Your task to perform on an android device: open app "Fetch Rewards" Image 0: 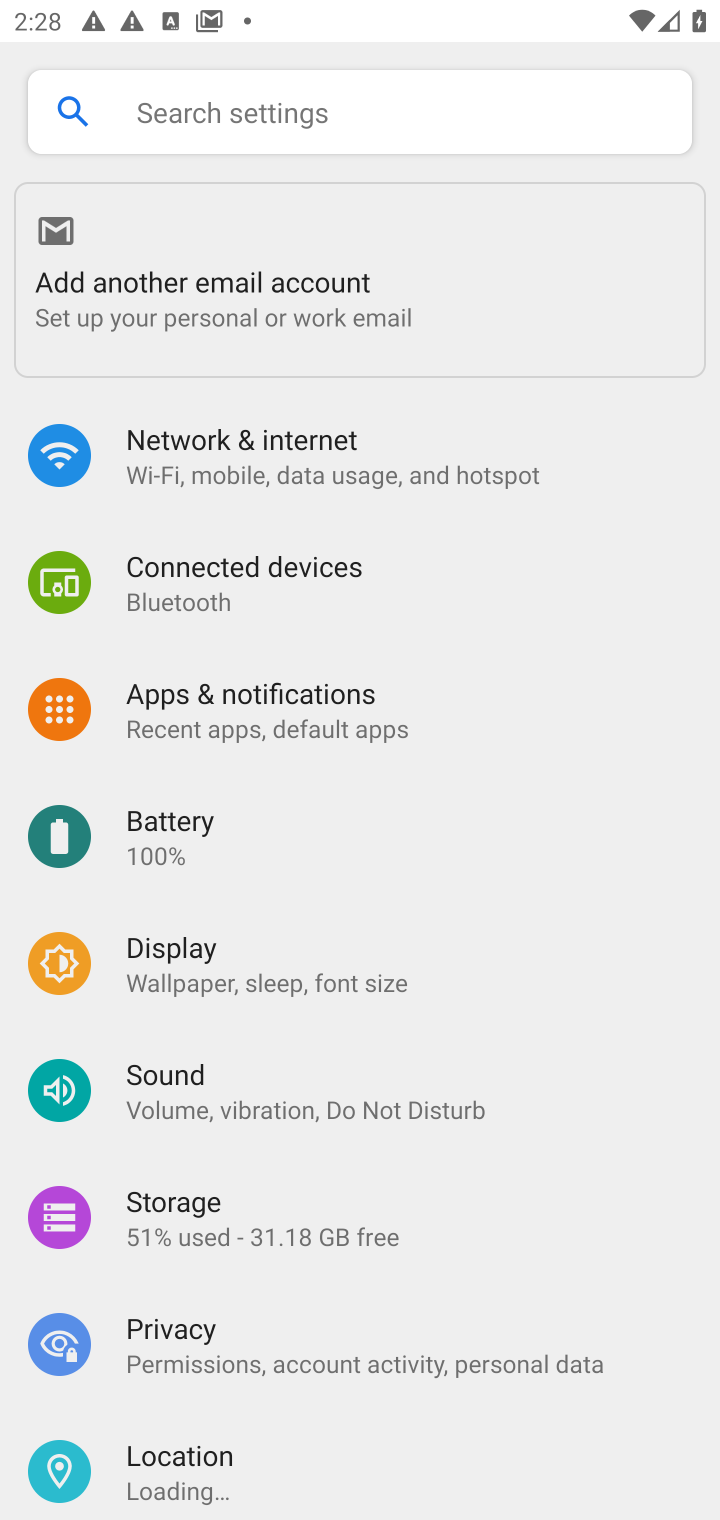
Step 0: press home button
Your task to perform on an android device: open app "Fetch Rewards" Image 1: 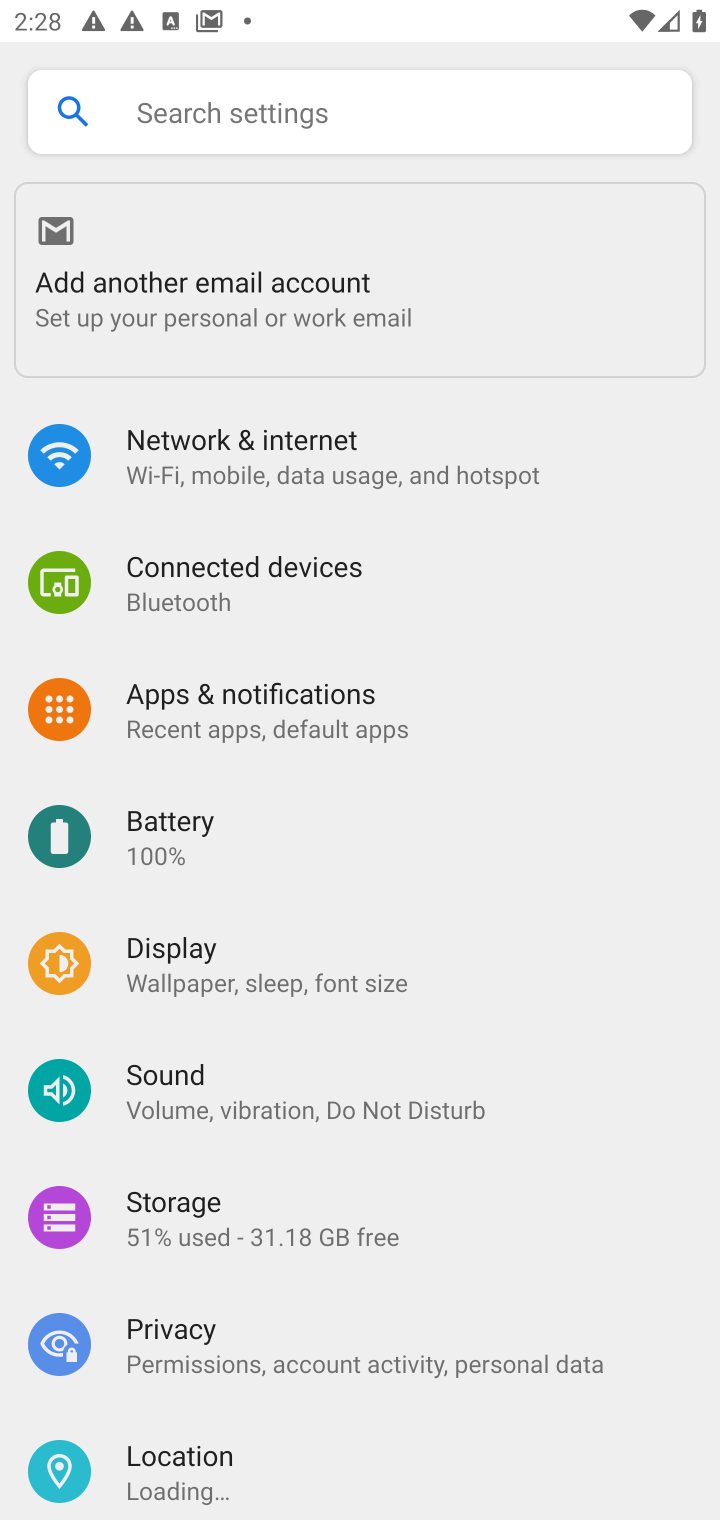
Step 1: press home button
Your task to perform on an android device: open app "Fetch Rewards" Image 2: 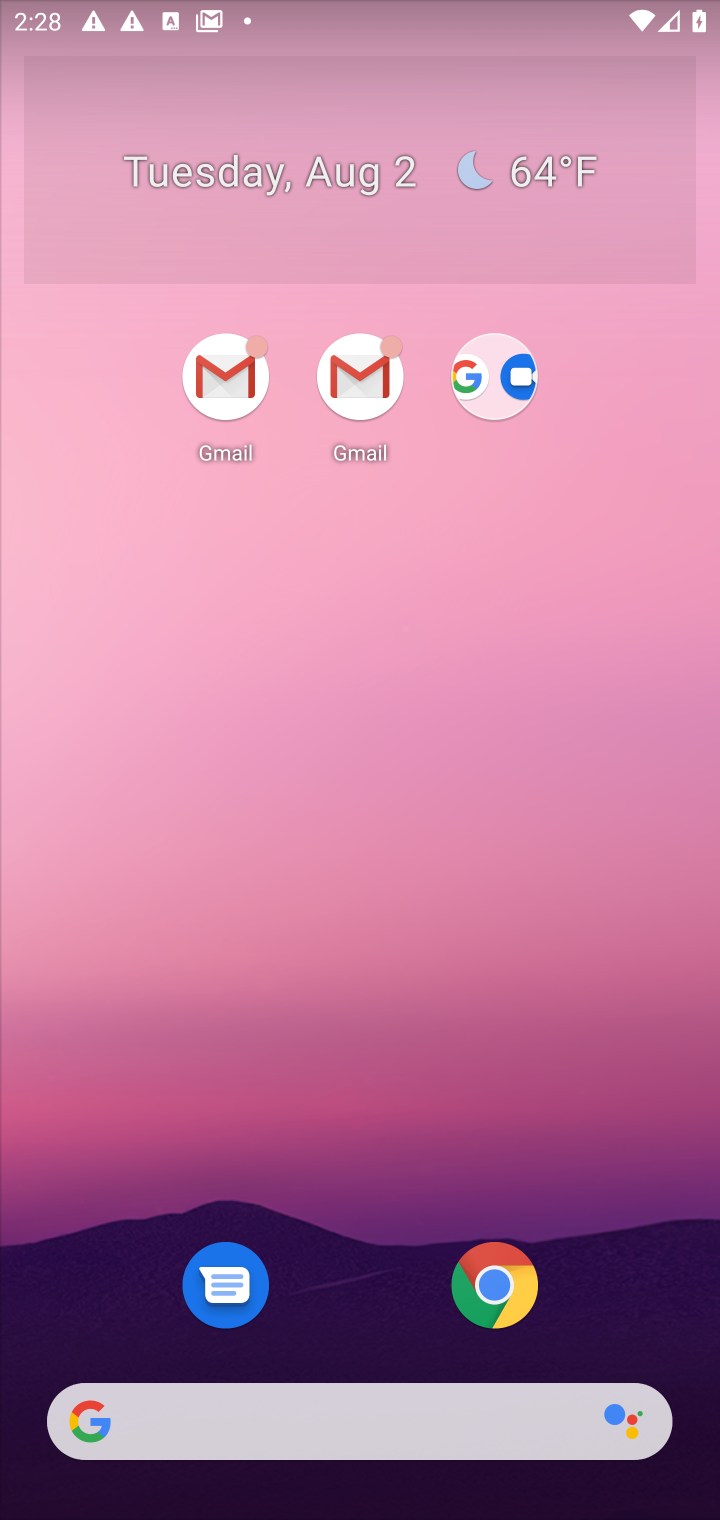
Step 2: press home button
Your task to perform on an android device: open app "Fetch Rewards" Image 3: 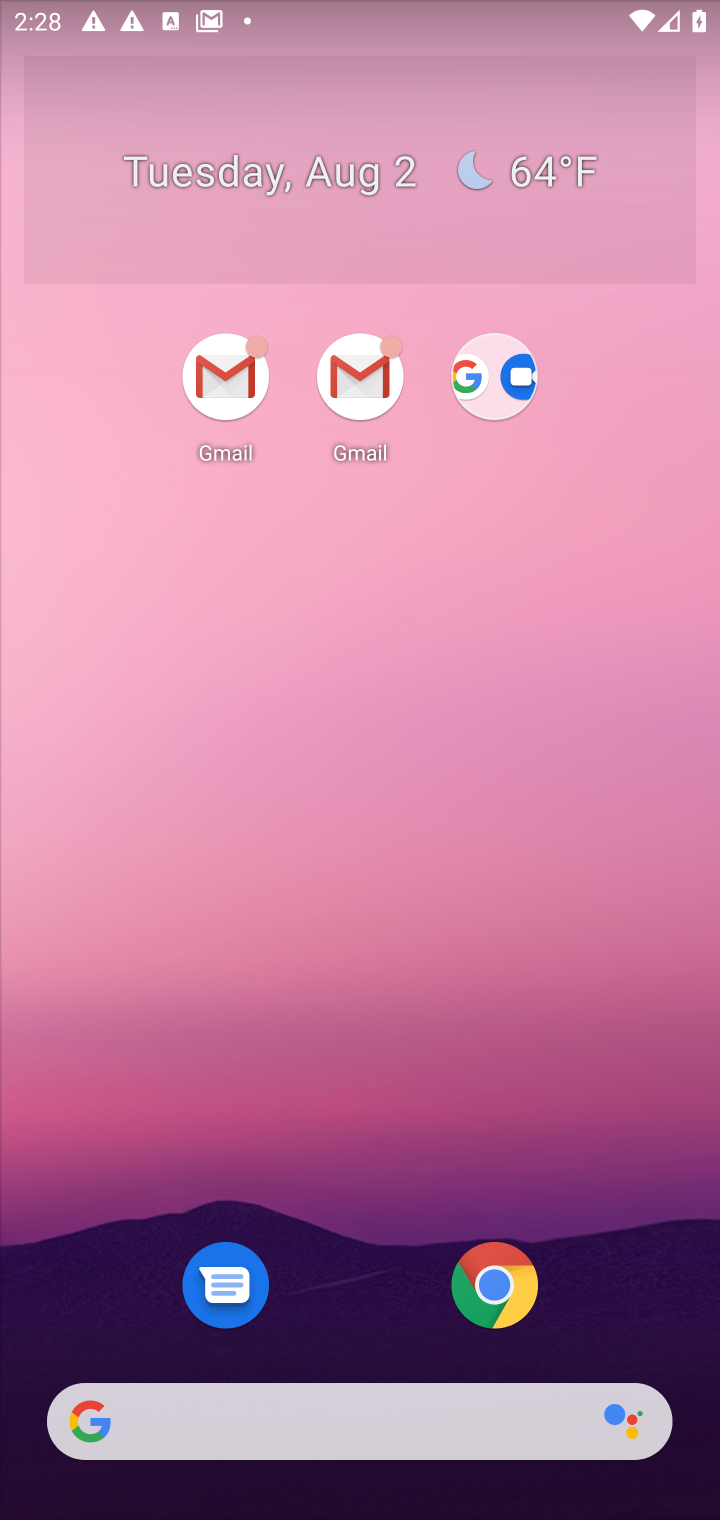
Step 3: drag from (645, 1251) to (628, 208)
Your task to perform on an android device: open app "Fetch Rewards" Image 4: 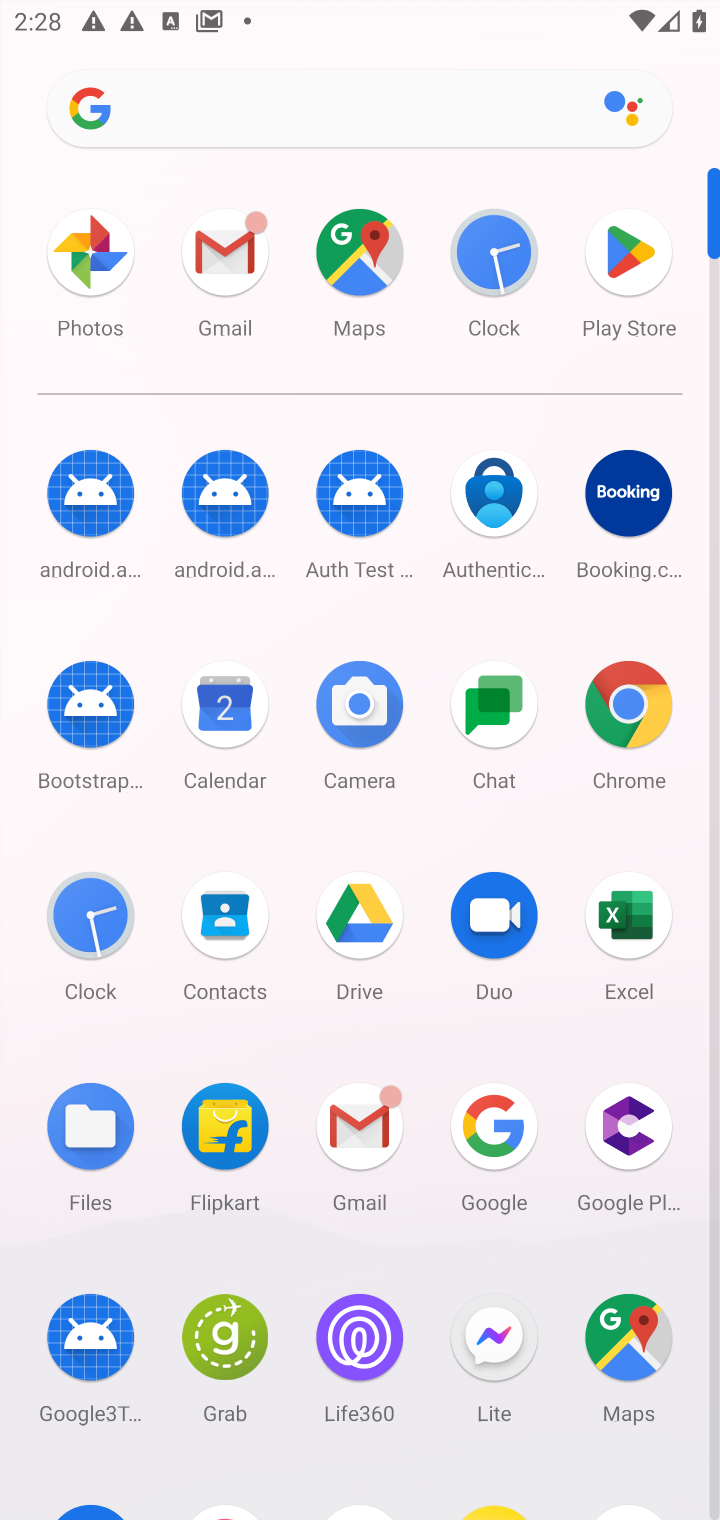
Step 4: drag from (432, 1251) to (449, 393)
Your task to perform on an android device: open app "Fetch Rewards" Image 5: 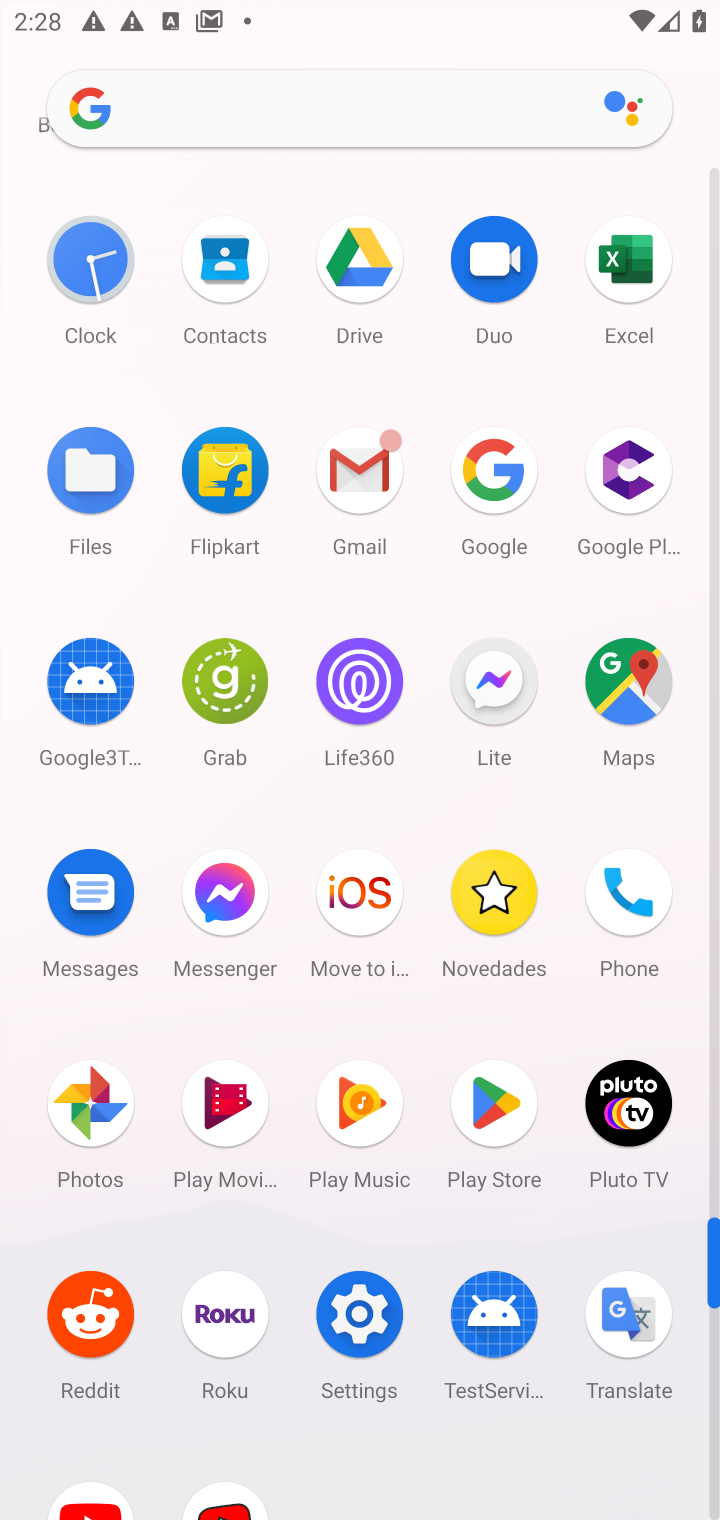
Step 5: click (479, 1104)
Your task to perform on an android device: open app "Fetch Rewards" Image 6: 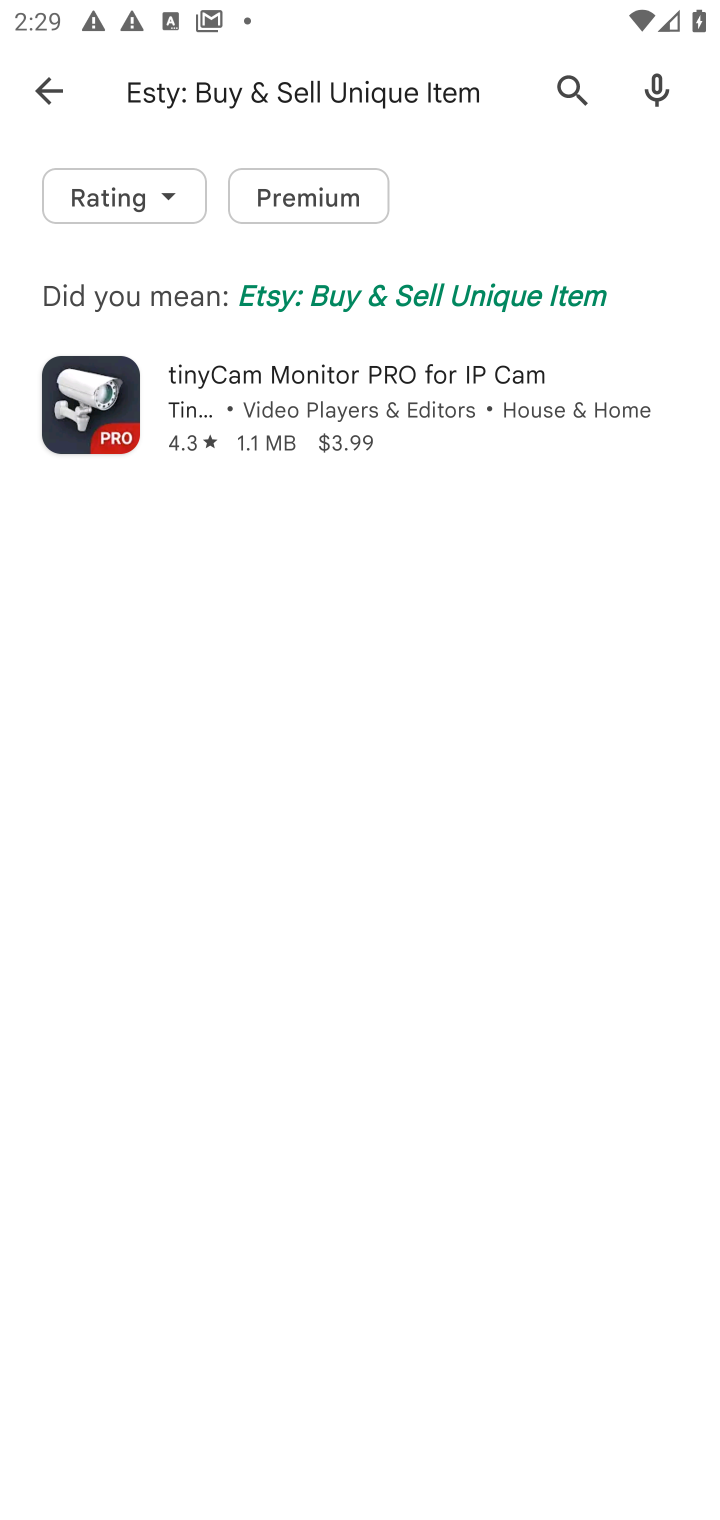
Step 6: click (383, 92)
Your task to perform on an android device: open app "Fetch Rewards" Image 7: 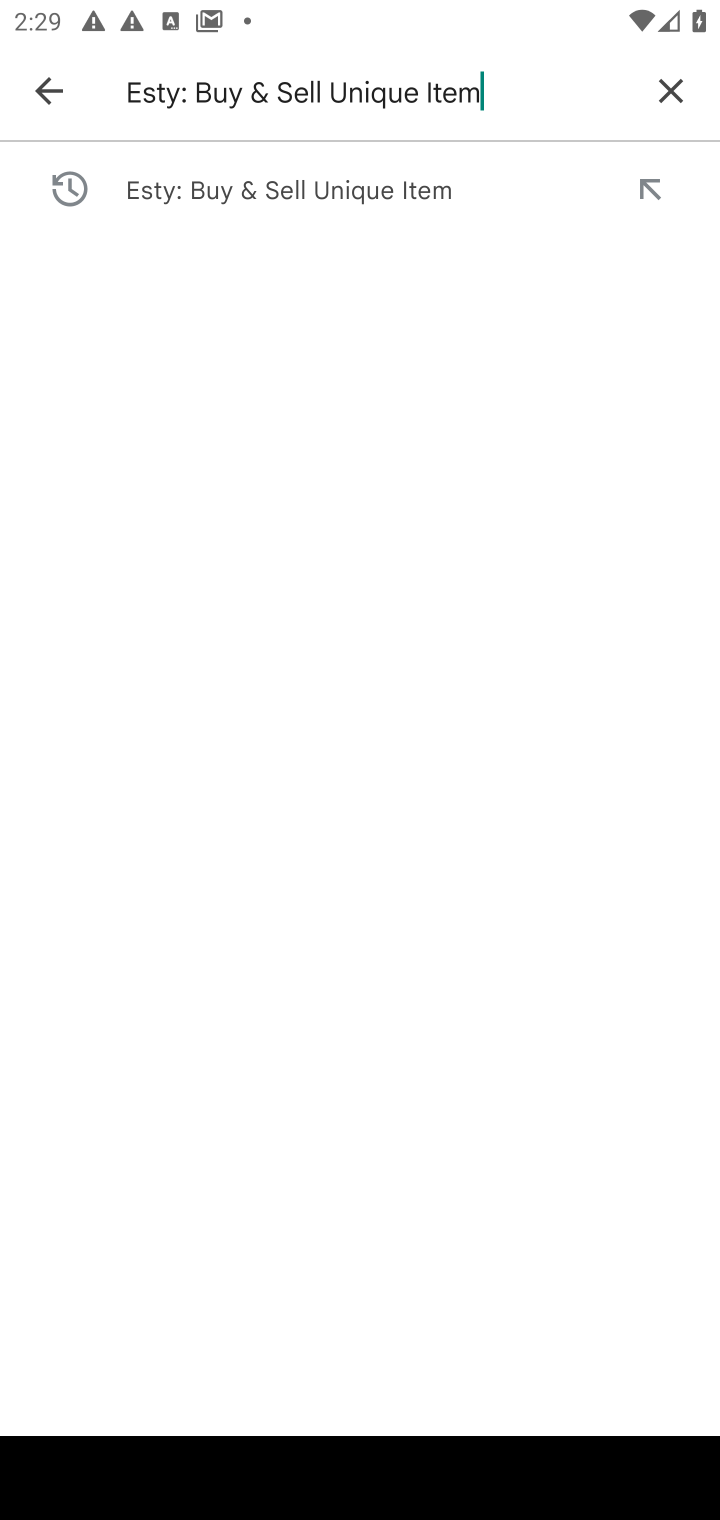
Step 7: click (683, 86)
Your task to perform on an android device: open app "Fetch Rewards" Image 8: 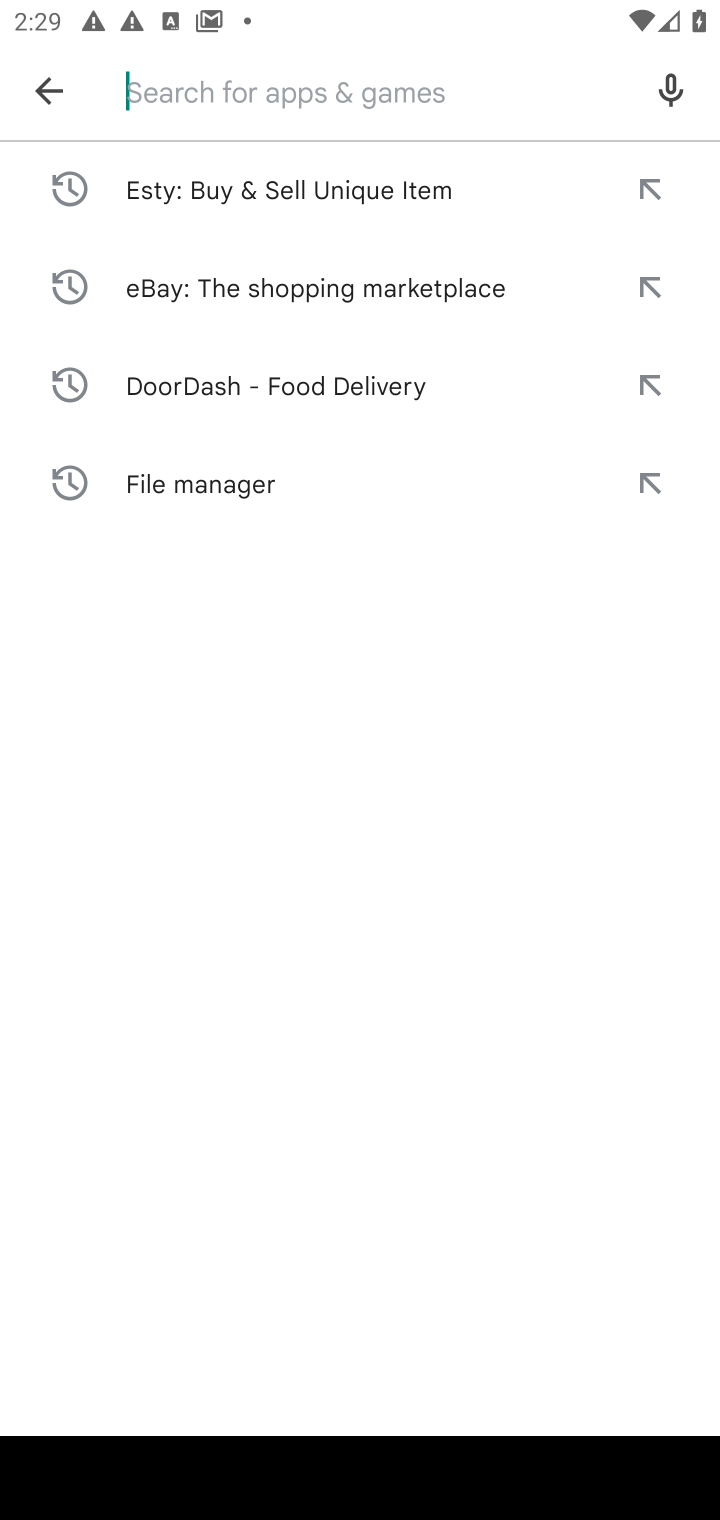
Step 8: type "Fetch Rewards"
Your task to perform on an android device: open app "Fetch Rewards" Image 9: 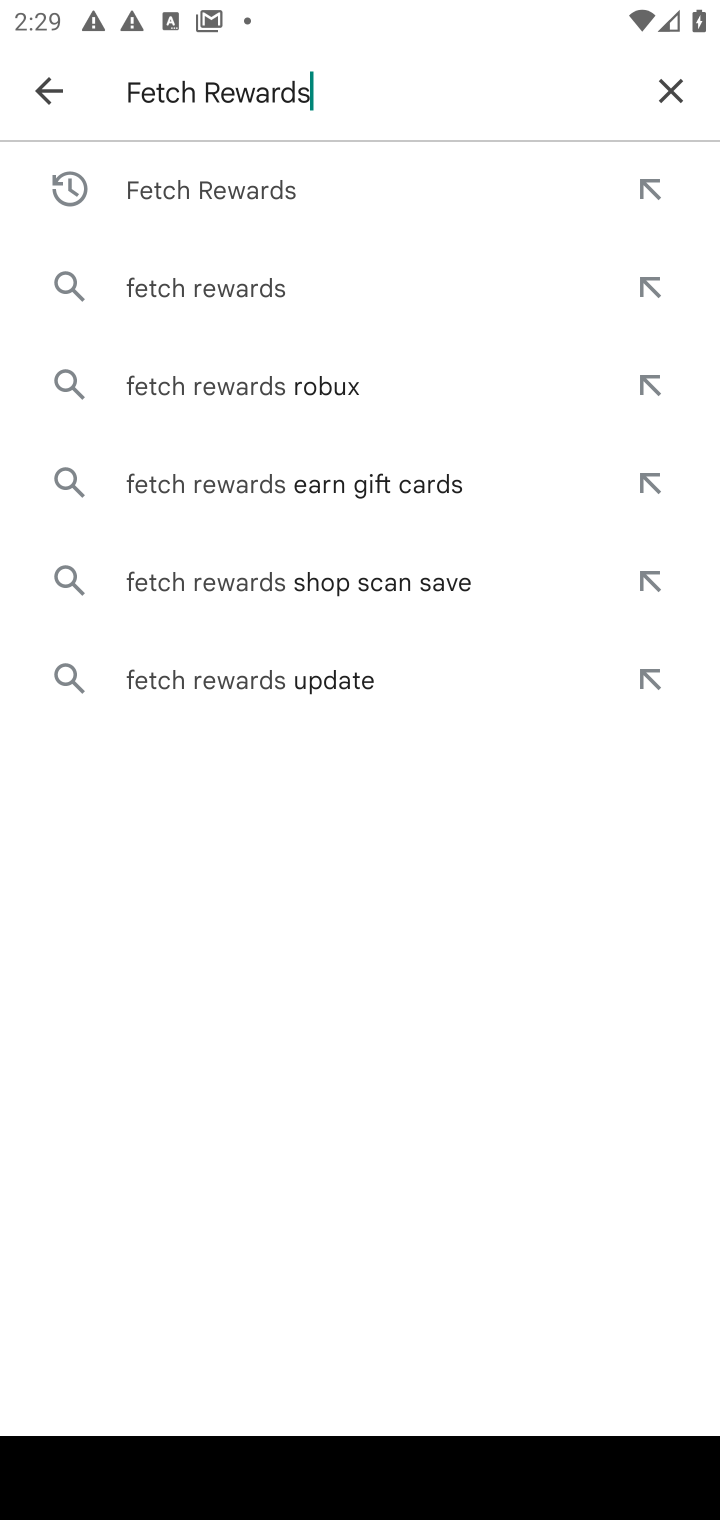
Step 9: press enter
Your task to perform on an android device: open app "Fetch Rewards" Image 10: 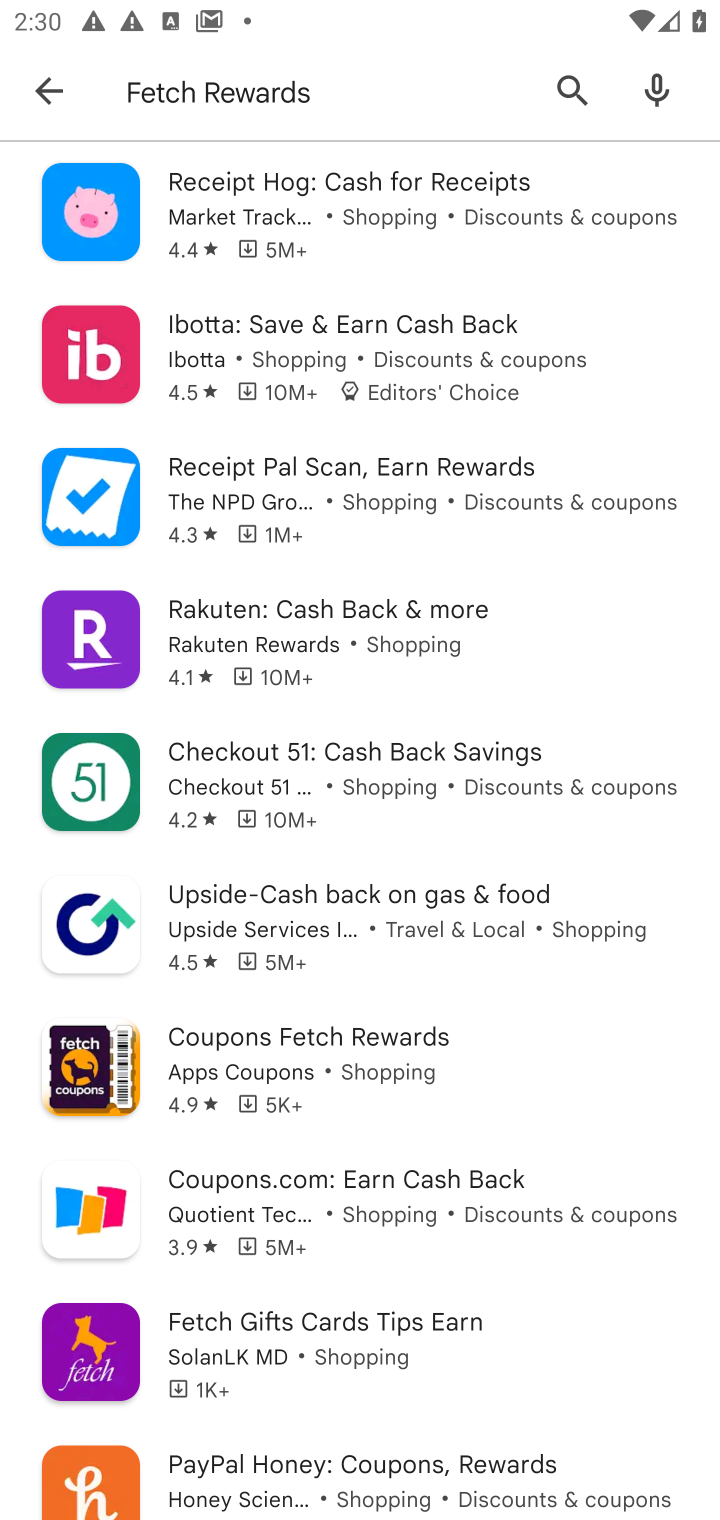
Step 10: task complete